Your task to perform on an android device: change the clock display to show seconds Image 0: 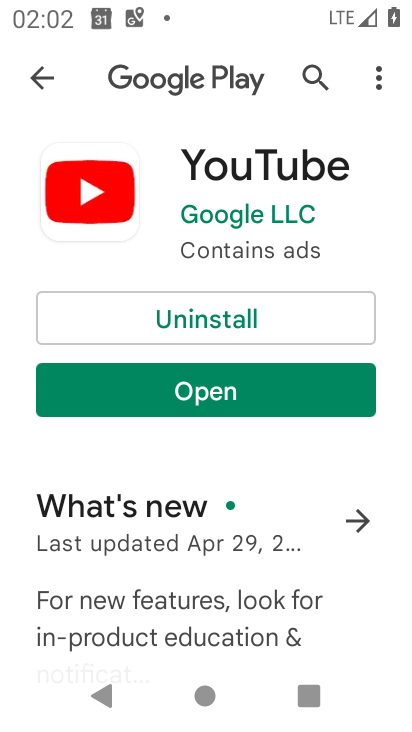
Step 0: press home button
Your task to perform on an android device: change the clock display to show seconds Image 1: 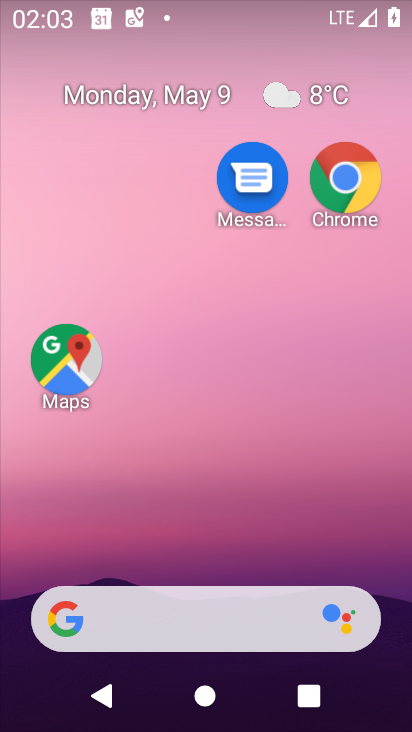
Step 1: drag from (197, 461) to (235, 152)
Your task to perform on an android device: change the clock display to show seconds Image 2: 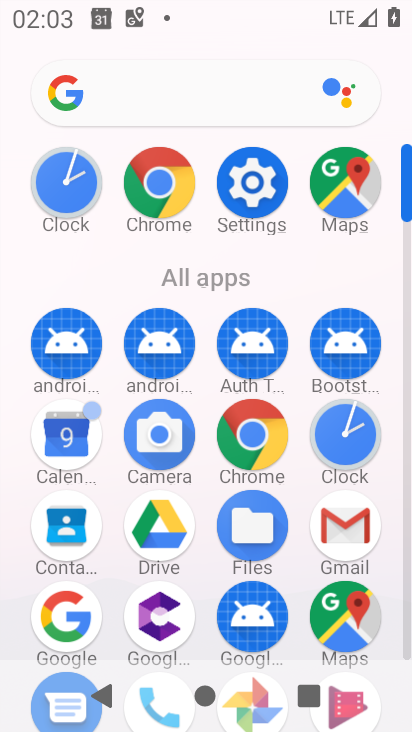
Step 2: click (356, 426)
Your task to perform on an android device: change the clock display to show seconds Image 3: 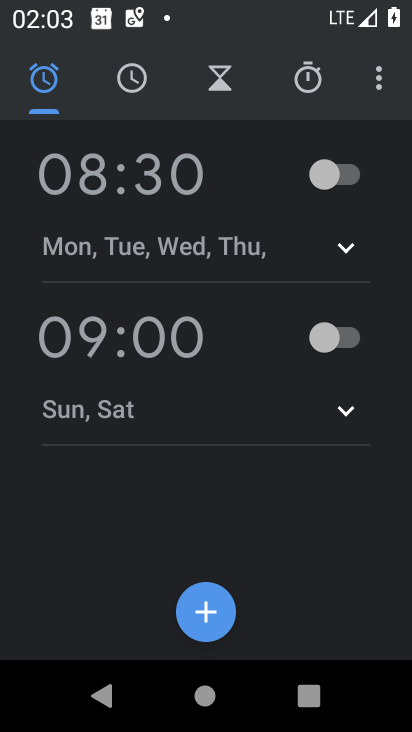
Step 3: click (403, 81)
Your task to perform on an android device: change the clock display to show seconds Image 4: 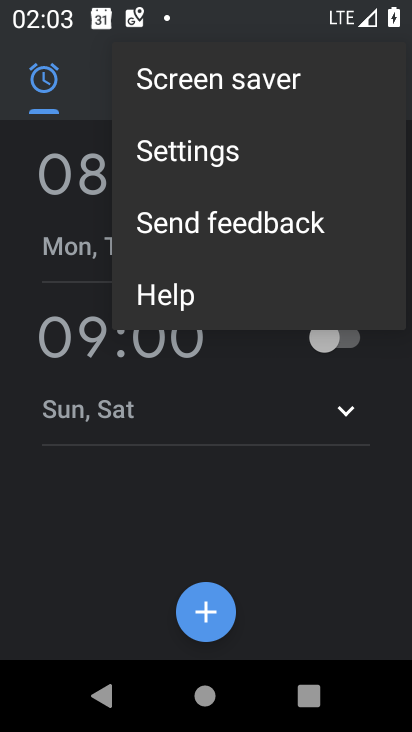
Step 4: click (385, 75)
Your task to perform on an android device: change the clock display to show seconds Image 5: 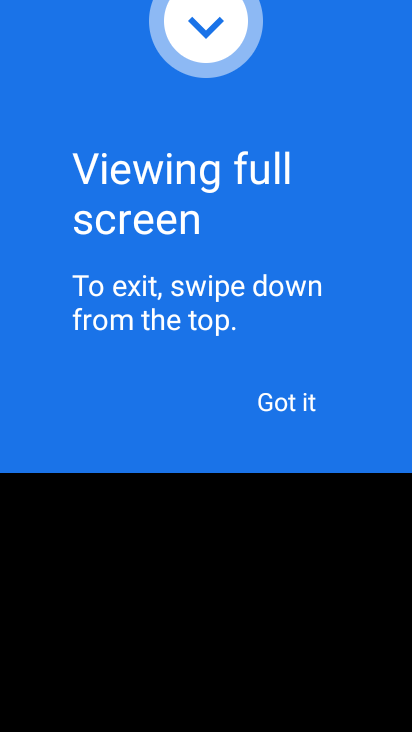
Step 5: press back button
Your task to perform on an android device: change the clock display to show seconds Image 6: 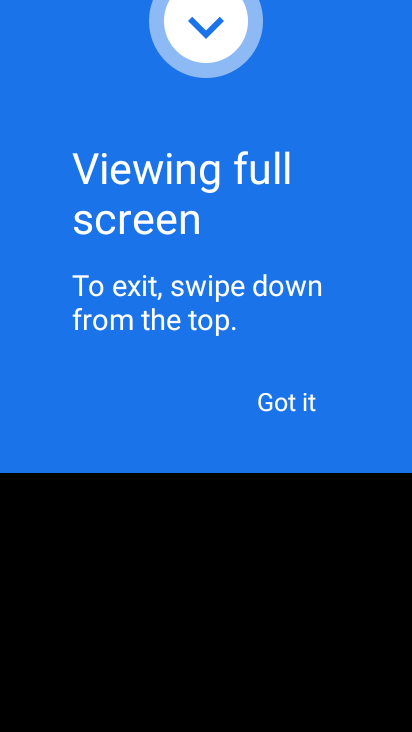
Step 6: press back button
Your task to perform on an android device: change the clock display to show seconds Image 7: 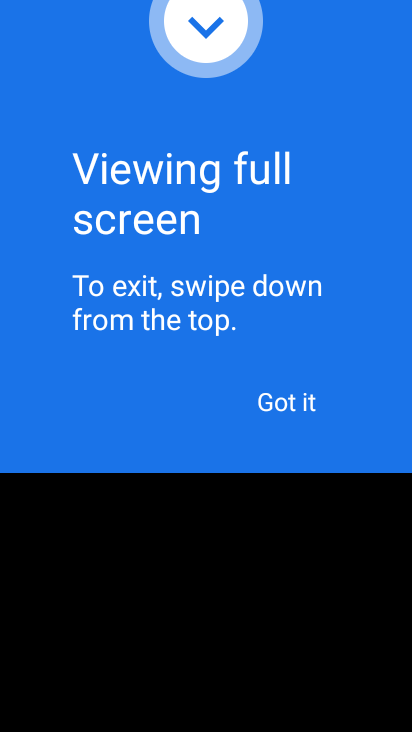
Step 7: press back button
Your task to perform on an android device: change the clock display to show seconds Image 8: 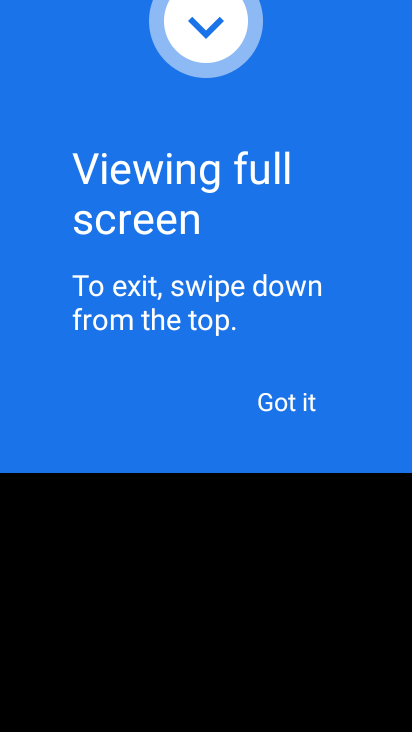
Step 8: click (302, 412)
Your task to perform on an android device: change the clock display to show seconds Image 9: 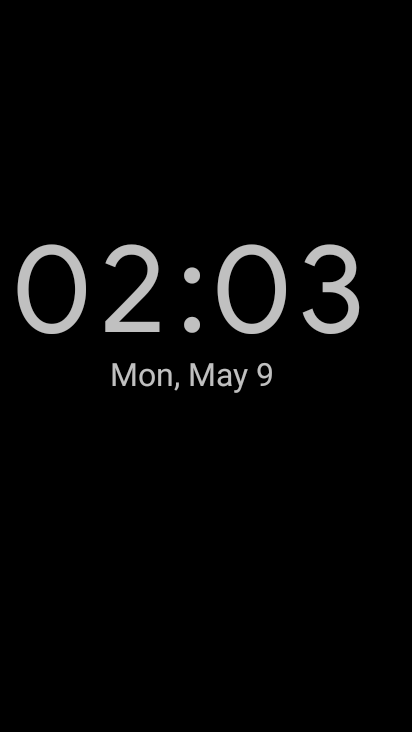
Step 9: press back button
Your task to perform on an android device: change the clock display to show seconds Image 10: 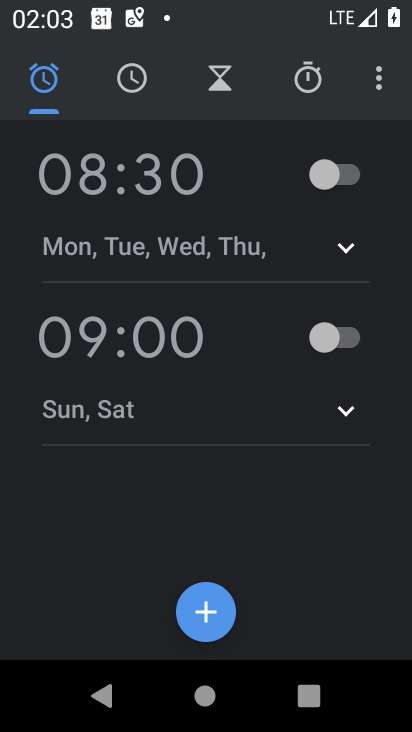
Step 10: click (383, 82)
Your task to perform on an android device: change the clock display to show seconds Image 11: 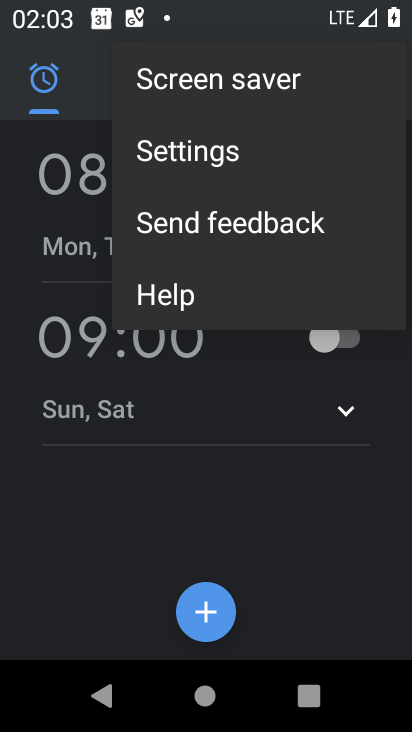
Step 11: click (235, 156)
Your task to perform on an android device: change the clock display to show seconds Image 12: 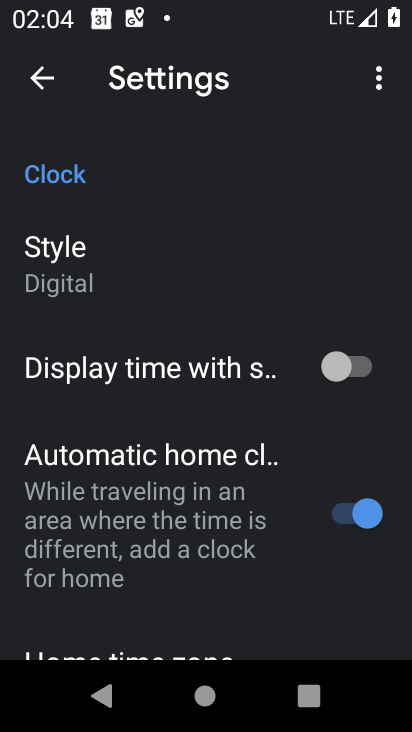
Step 12: click (353, 365)
Your task to perform on an android device: change the clock display to show seconds Image 13: 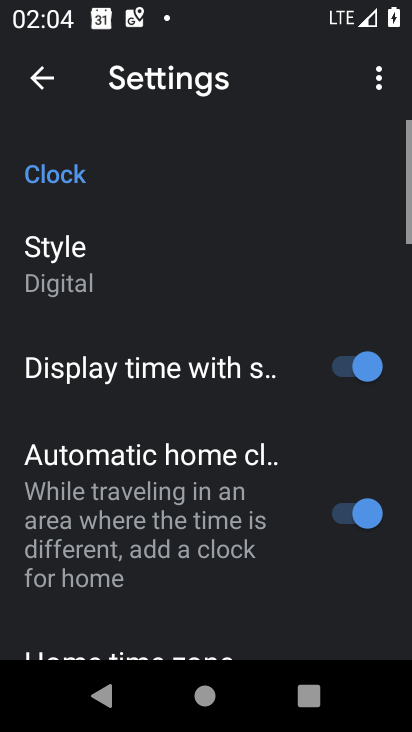
Step 13: task complete